Your task to perform on an android device: Open Reddit.com Image 0: 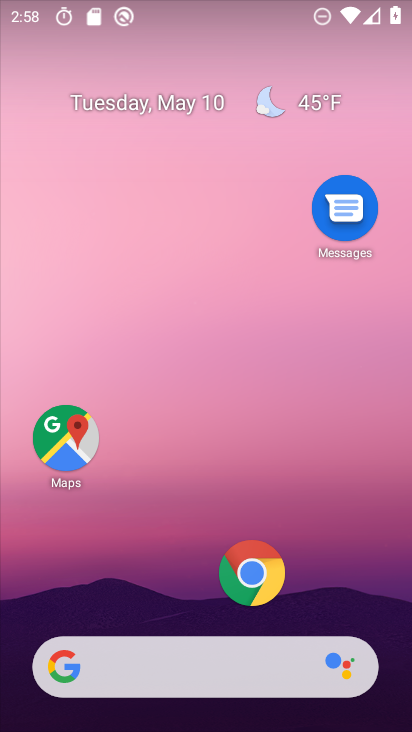
Step 0: drag from (182, 610) to (292, 190)
Your task to perform on an android device: Open Reddit.com Image 1: 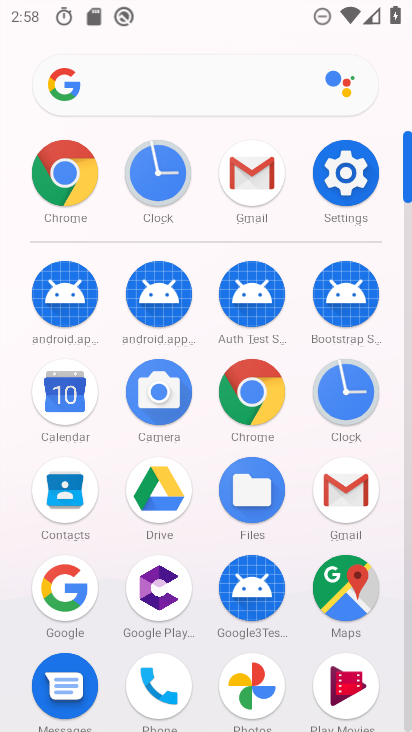
Step 1: click (174, 89)
Your task to perform on an android device: Open Reddit.com Image 2: 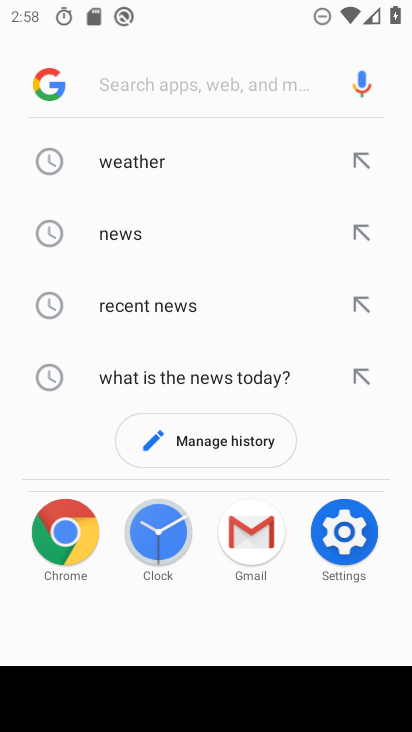
Step 2: type "reddit.com"
Your task to perform on an android device: Open Reddit.com Image 3: 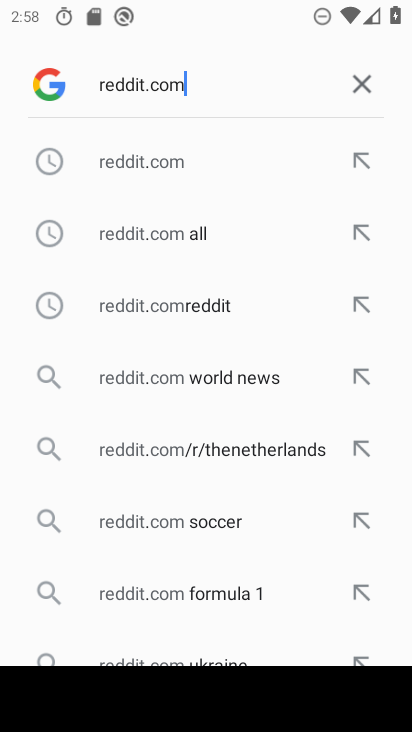
Step 3: click (208, 141)
Your task to perform on an android device: Open Reddit.com Image 4: 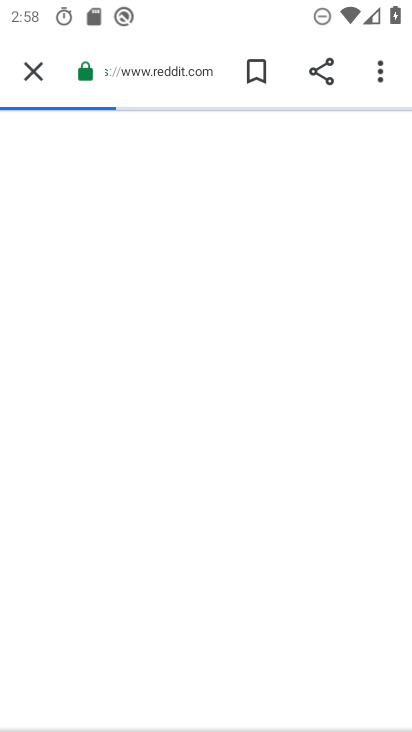
Step 4: task complete